Your task to perform on an android device: Open Wikipedia Image 0: 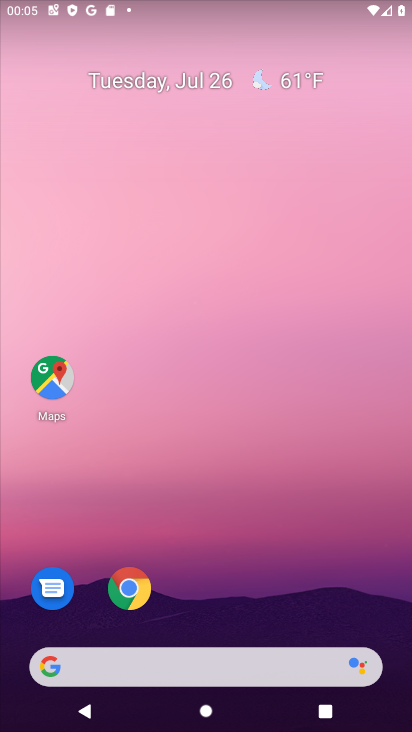
Step 0: drag from (205, 616) to (205, 93)
Your task to perform on an android device: Open Wikipedia Image 1: 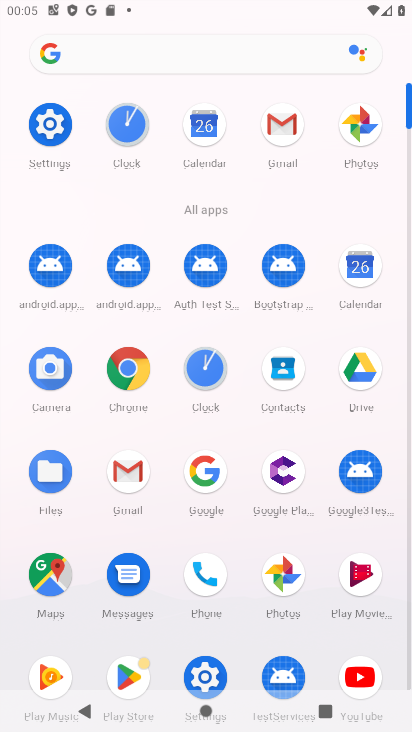
Step 1: click (128, 367)
Your task to perform on an android device: Open Wikipedia Image 2: 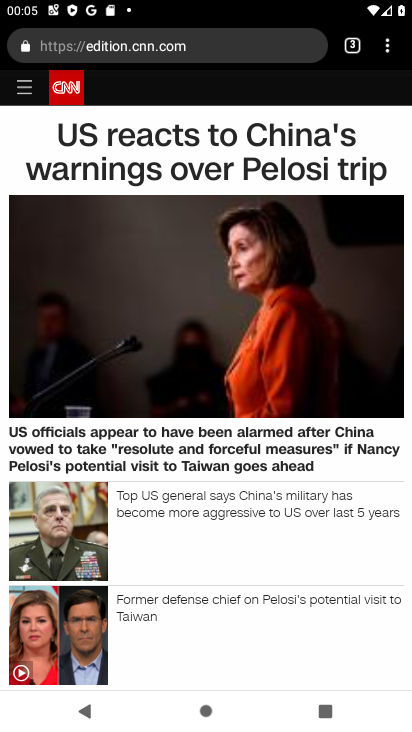
Step 2: click (352, 48)
Your task to perform on an android device: Open Wikipedia Image 3: 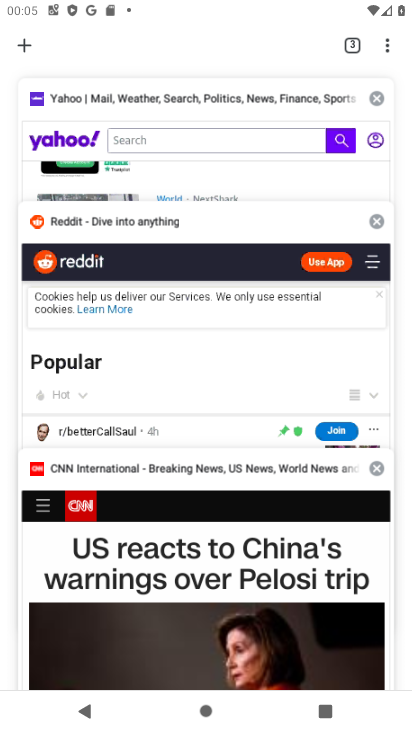
Step 3: click (22, 40)
Your task to perform on an android device: Open Wikipedia Image 4: 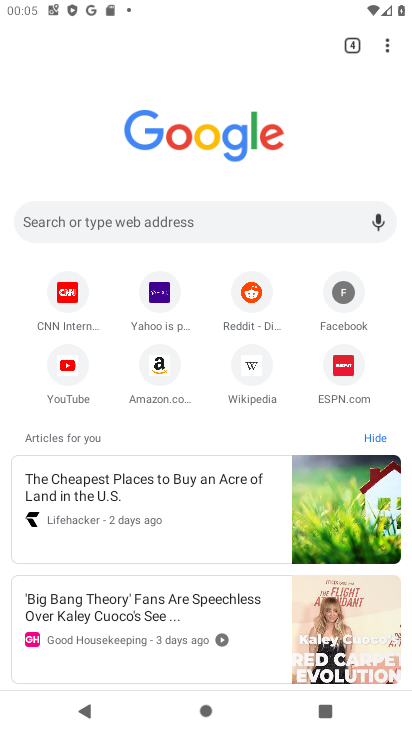
Step 4: click (243, 365)
Your task to perform on an android device: Open Wikipedia Image 5: 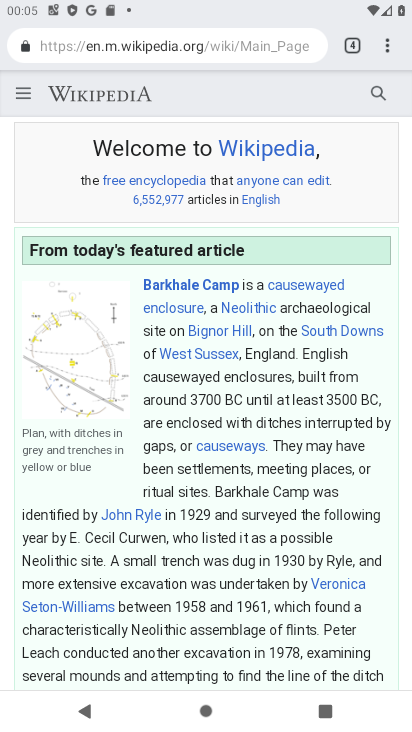
Step 5: task complete